Your task to perform on an android device: Go to ESPN.com Image 0: 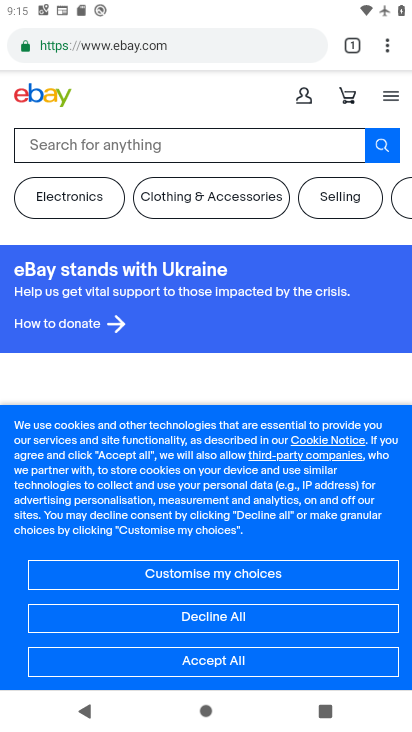
Step 0: press home button
Your task to perform on an android device: Go to ESPN.com Image 1: 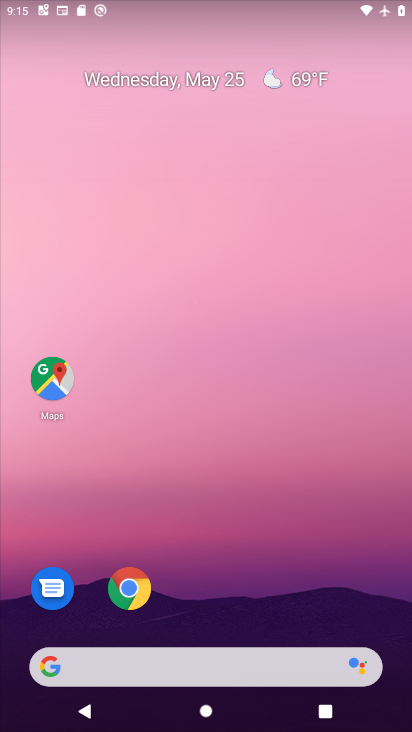
Step 1: drag from (378, 609) to (374, 224)
Your task to perform on an android device: Go to ESPN.com Image 2: 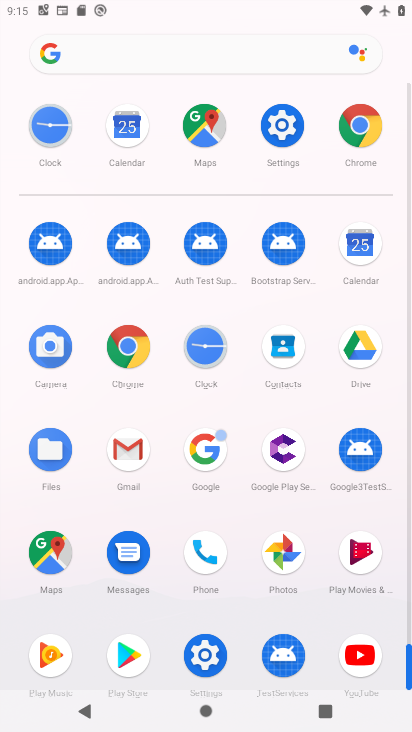
Step 2: click (132, 359)
Your task to perform on an android device: Go to ESPN.com Image 3: 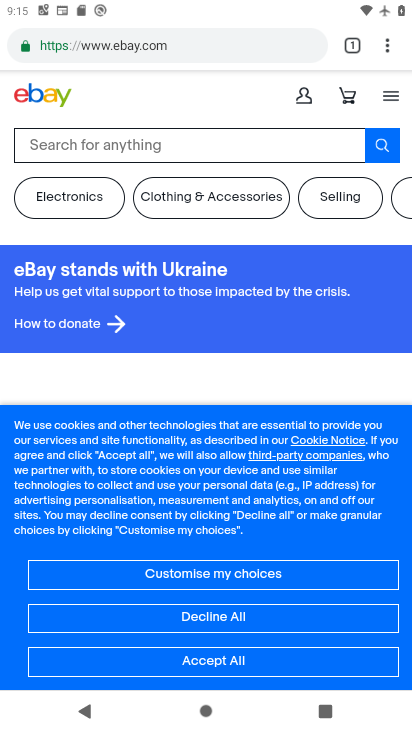
Step 3: click (213, 44)
Your task to perform on an android device: Go to ESPN.com Image 4: 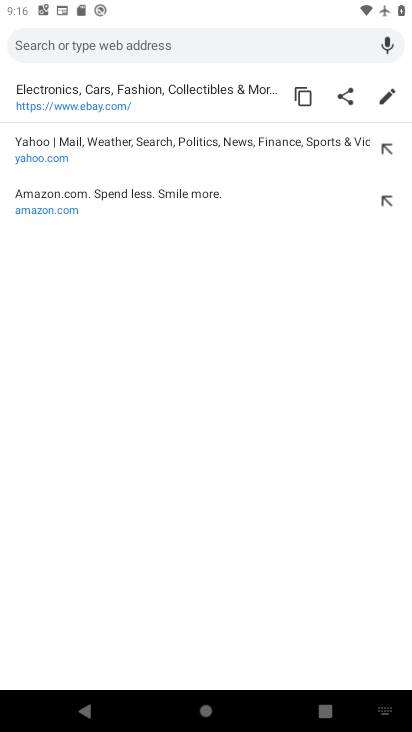
Step 4: type "espn.com"
Your task to perform on an android device: Go to ESPN.com Image 5: 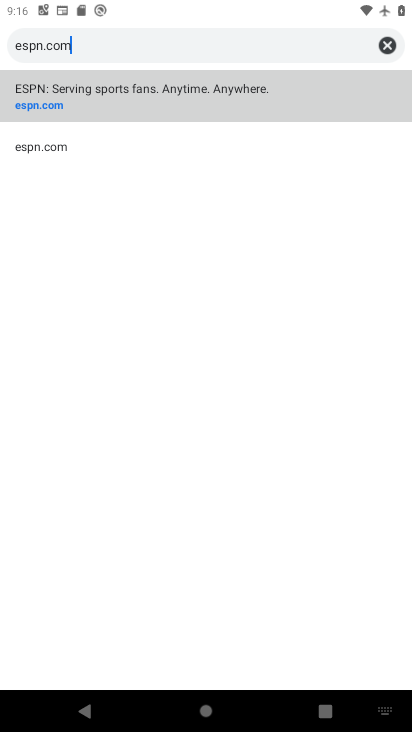
Step 5: click (76, 114)
Your task to perform on an android device: Go to ESPN.com Image 6: 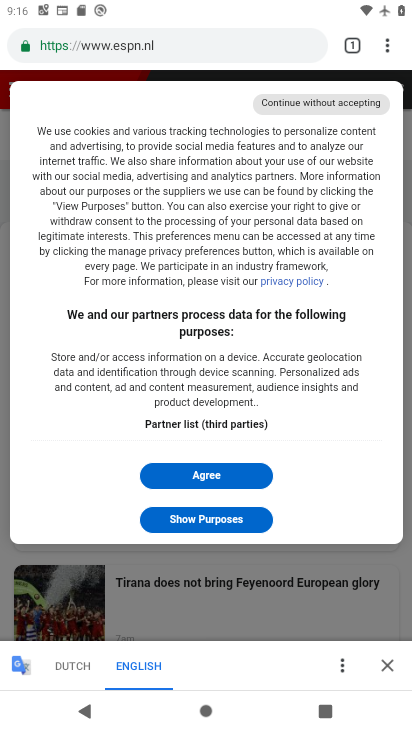
Step 6: task complete